Your task to perform on an android device: Go to notification settings Image 0: 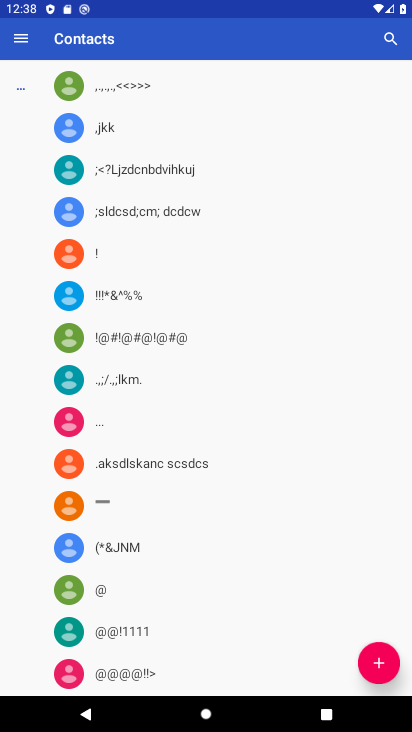
Step 0: press home button
Your task to perform on an android device: Go to notification settings Image 1: 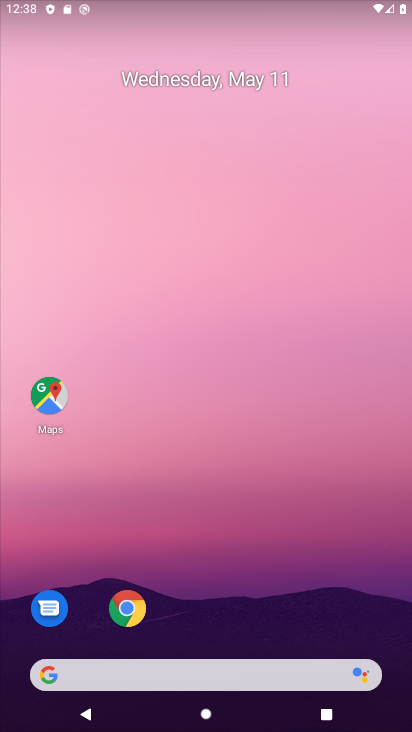
Step 1: drag from (185, 328) to (191, 120)
Your task to perform on an android device: Go to notification settings Image 2: 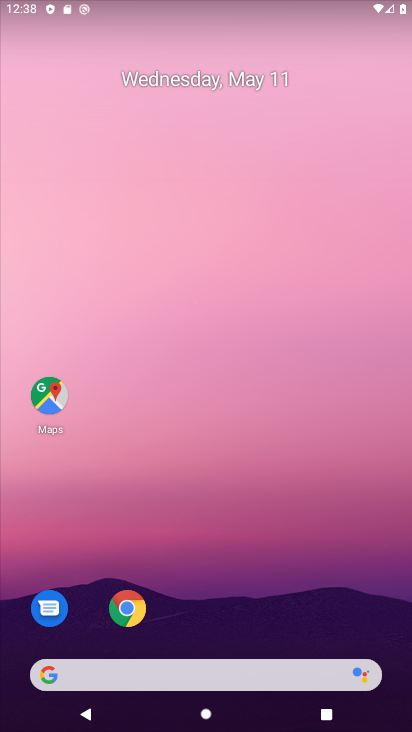
Step 2: drag from (227, 616) to (259, 136)
Your task to perform on an android device: Go to notification settings Image 3: 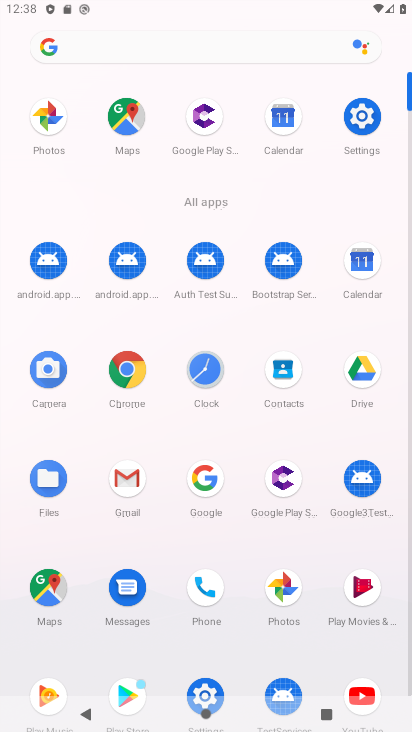
Step 3: click (357, 119)
Your task to perform on an android device: Go to notification settings Image 4: 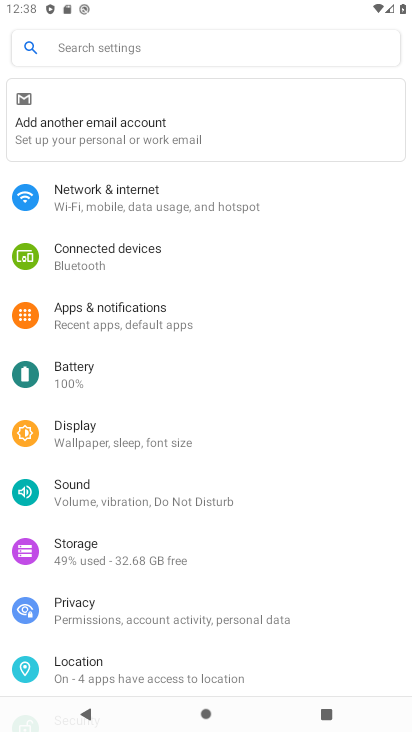
Step 4: click (161, 324)
Your task to perform on an android device: Go to notification settings Image 5: 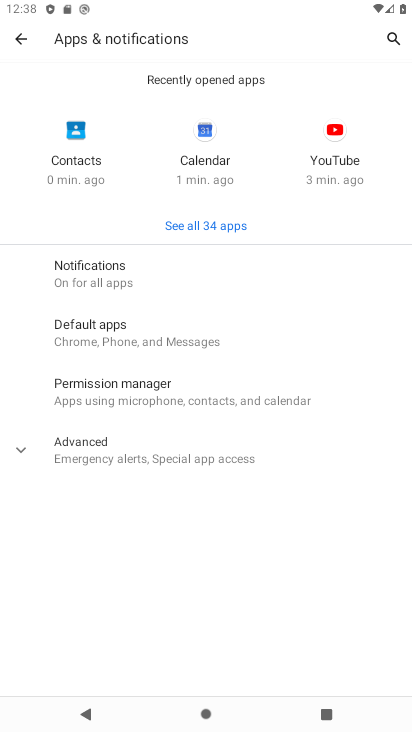
Step 5: click (178, 271)
Your task to perform on an android device: Go to notification settings Image 6: 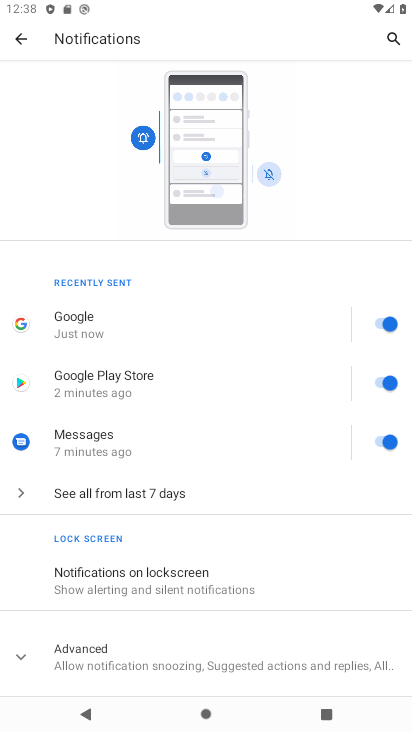
Step 6: task complete